Your task to perform on an android device: Open wifi settings Image 0: 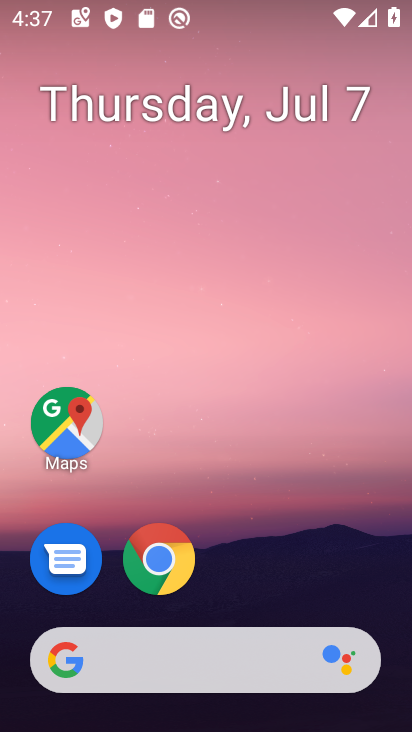
Step 0: drag from (106, 9) to (168, 553)
Your task to perform on an android device: Open wifi settings Image 1: 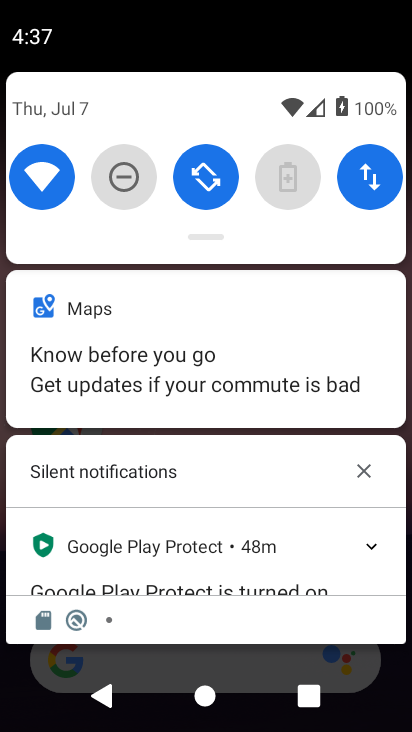
Step 1: click (50, 182)
Your task to perform on an android device: Open wifi settings Image 2: 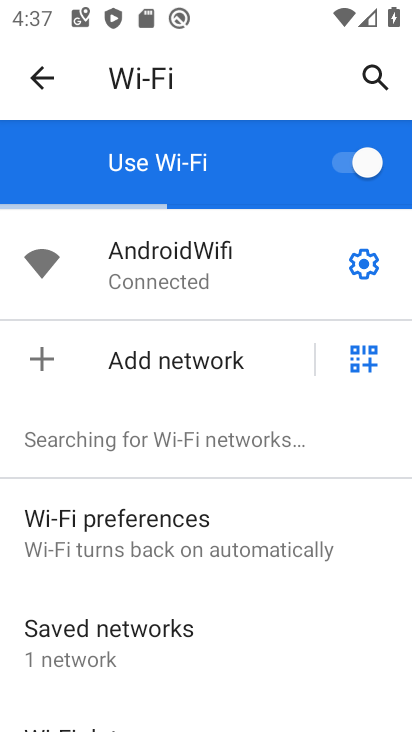
Step 2: task complete